Your task to perform on an android device: check google app version Image 0: 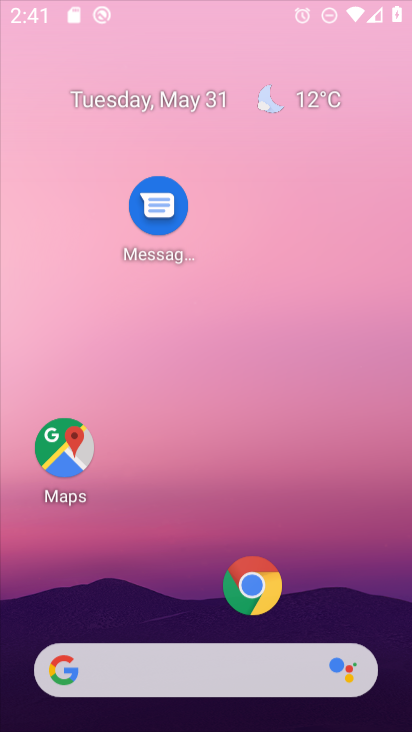
Step 0: drag from (321, 6) to (267, 2)
Your task to perform on an android device: check google app version Image 1: 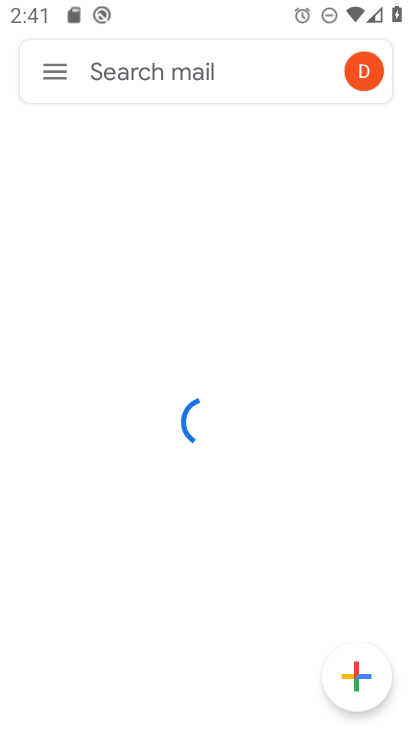
Step 1: press home button
Your task to perform on an android device: check google app version Image 2: 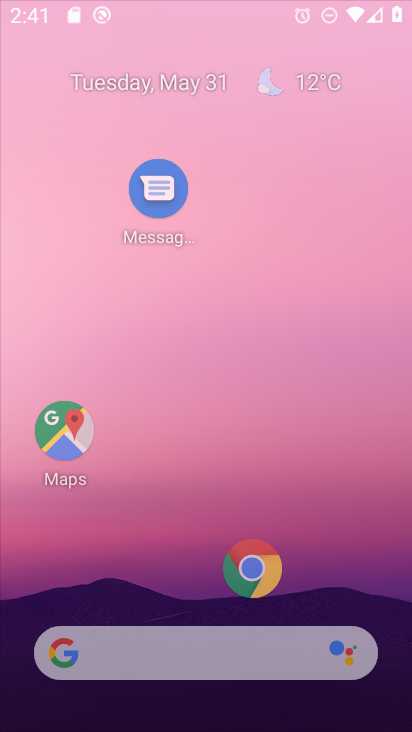
Step 2: drag from (217, 547) to (297, 26)
Your task to perform on an android device: check google app version Image 3: 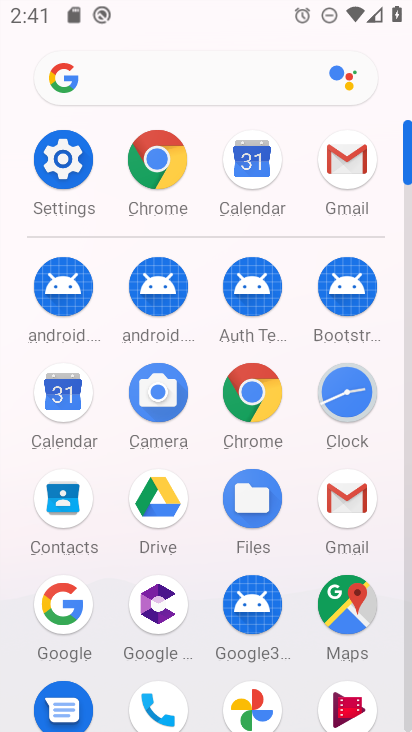
Step 3: click (81, 608)
Your task to perform on an android device: check google app version Image 4: 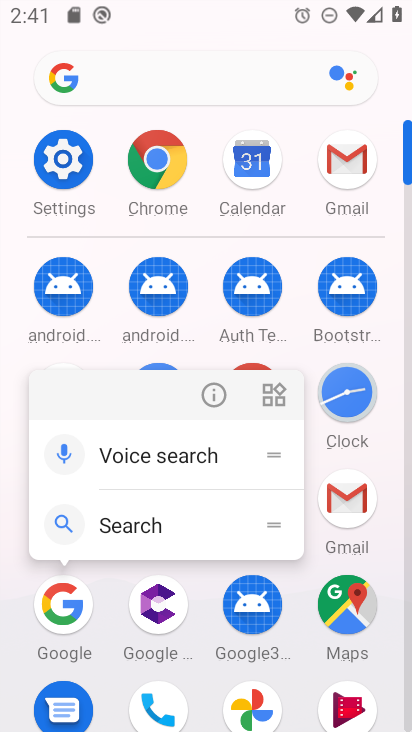
Step 4: click (216, 393)
Your task to perform on an android device: check google app version Image 5: 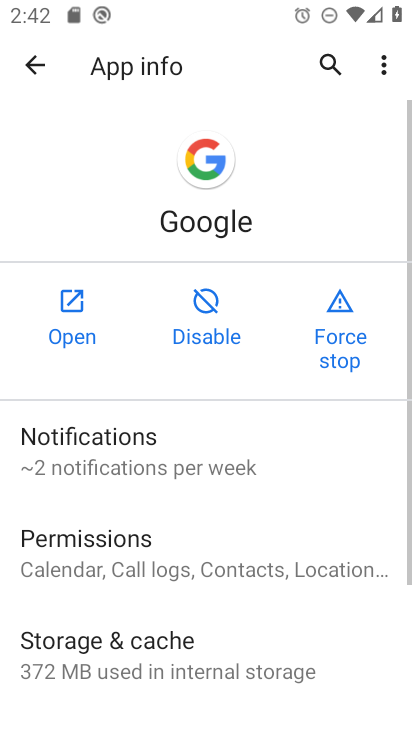
Step 5: click (78, 322)
Your task to perform on an android device: check google app version Image 6: 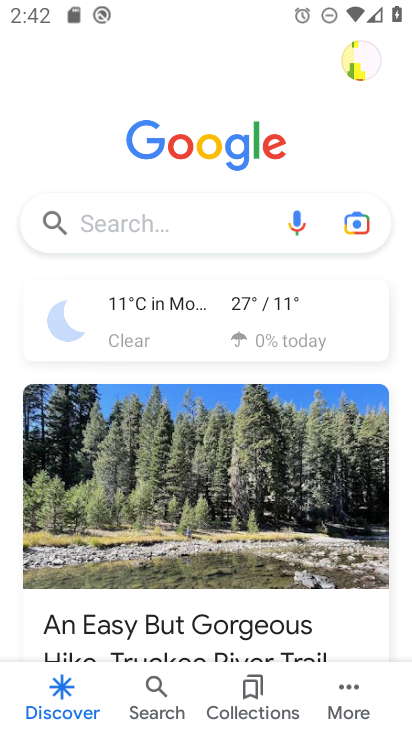
Step 6: click (335, 688)
Your task to perform on an android device: check google app version Image 7: 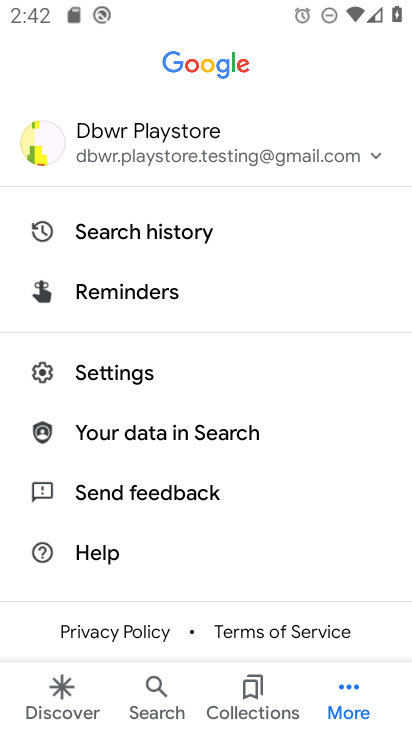
Step 7: drag from (166, 459) to (284, 1)
Your task to perform on an android device: check google app version Image 8: 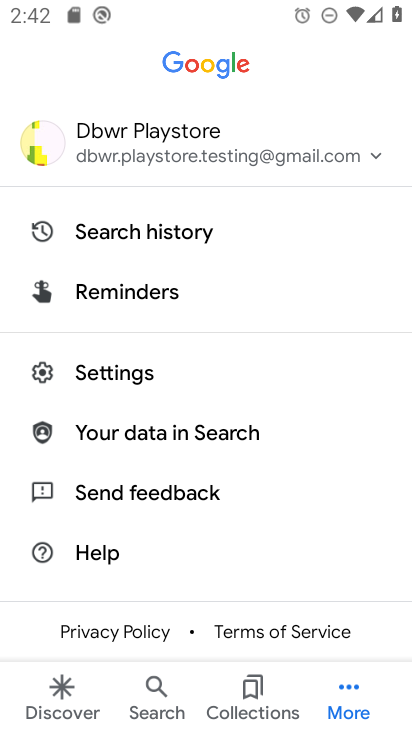
Step 8: click (161, 360)
Your task to perform on an android device: check google app version Image 9: 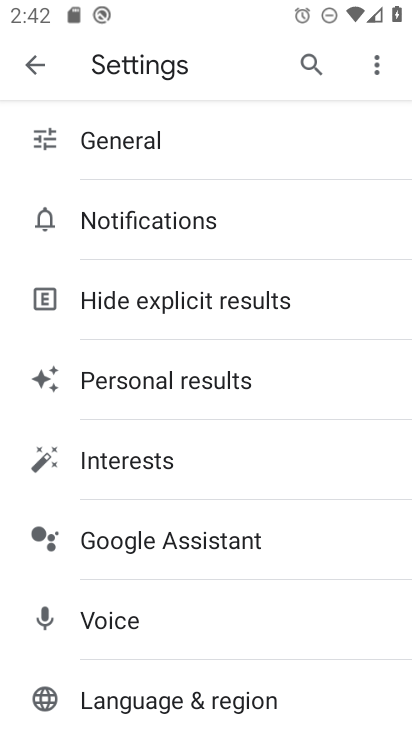
Step 9: drag from (191, 586) to (252, 172)
Your task to perform on an android device: check google app version Image 10: 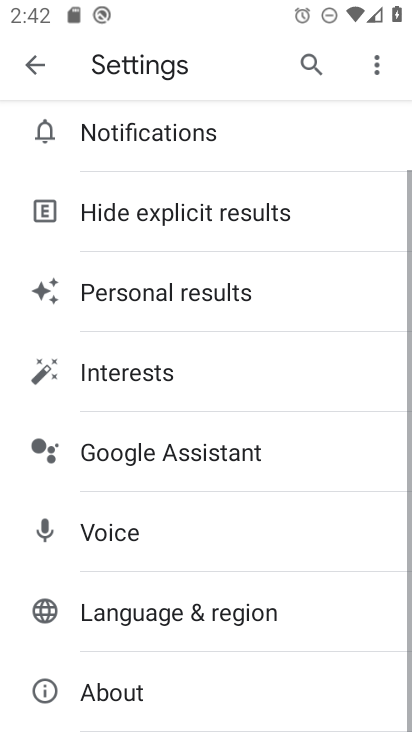
Step 10: drag from (204, 575) to (391, 152)
Your task to perform on an android device: check google app version Image 11: 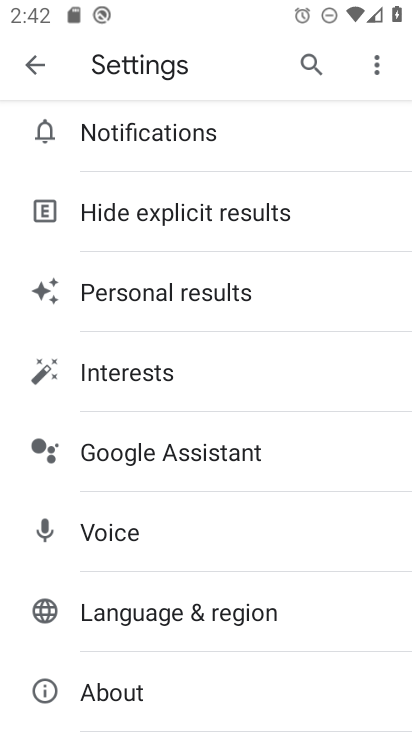
Step 11: click (183, 685)
Your task to perform on an android device: check google app version Image 12: 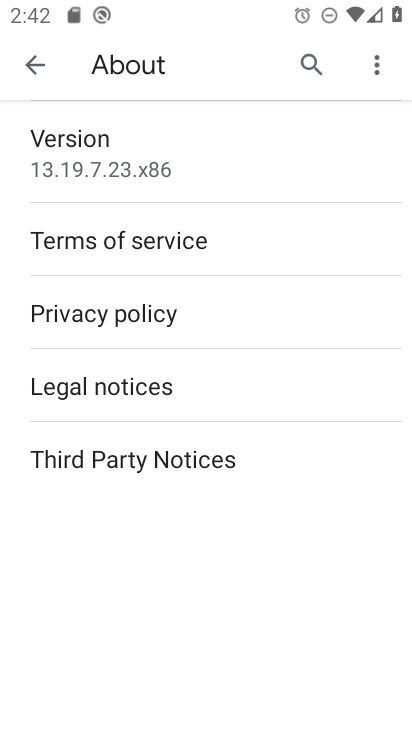
Step 12: drag from (176, 665) to (231, 225)
Your task to perform on an android device: check google app version Image 13: 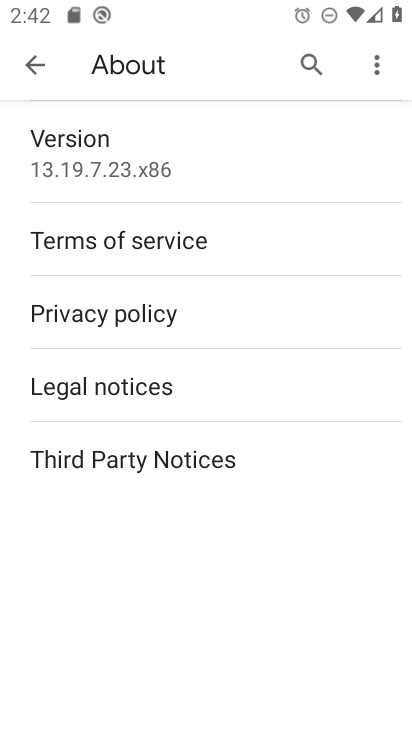
Step 13: click (150, 176)
Your task to perform on an android device: check google app version Image 14: 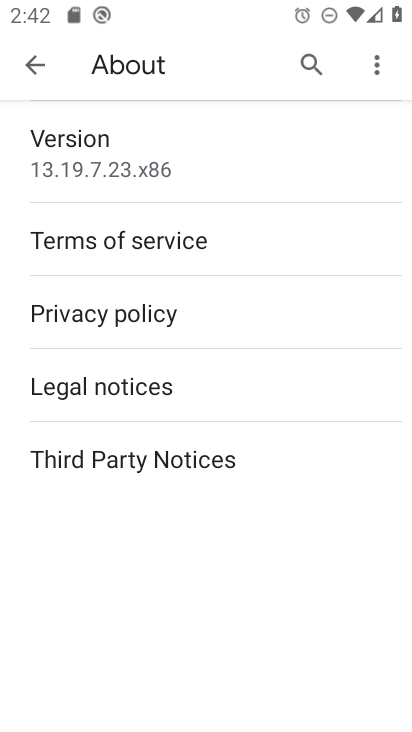
Step 14: task complete